Your task to perform on an android device: turn on showing notifications on the lock screen Image 0: 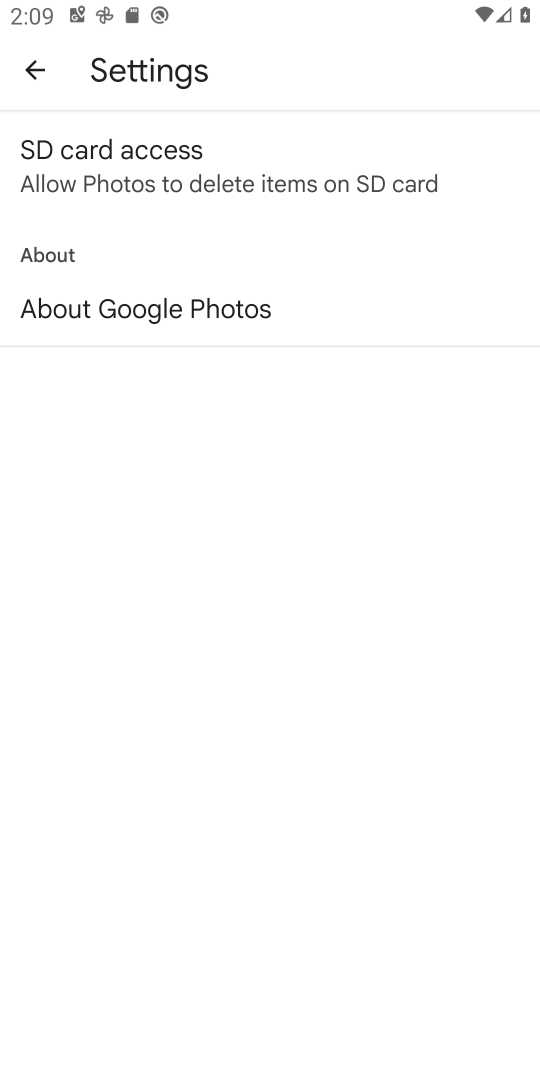
Step 0: press home button
Your task to perform on an android device: turn on showing notifications on the lock screen Image 1: 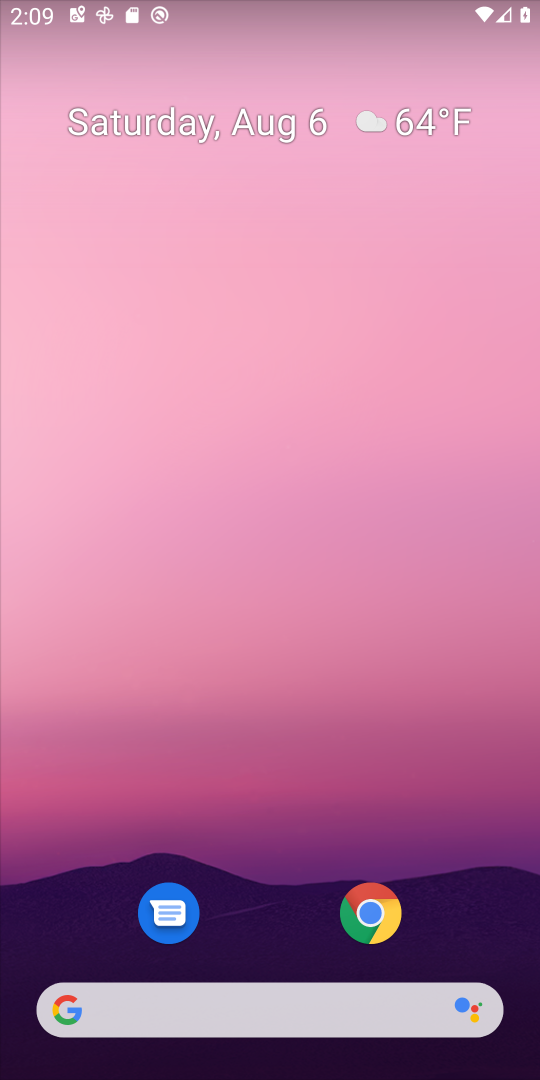
Step 1: drag from (467, 893) to (483, 302)
Your task to perform on an android device: turn on showing notifications on the lock screen Image 2: 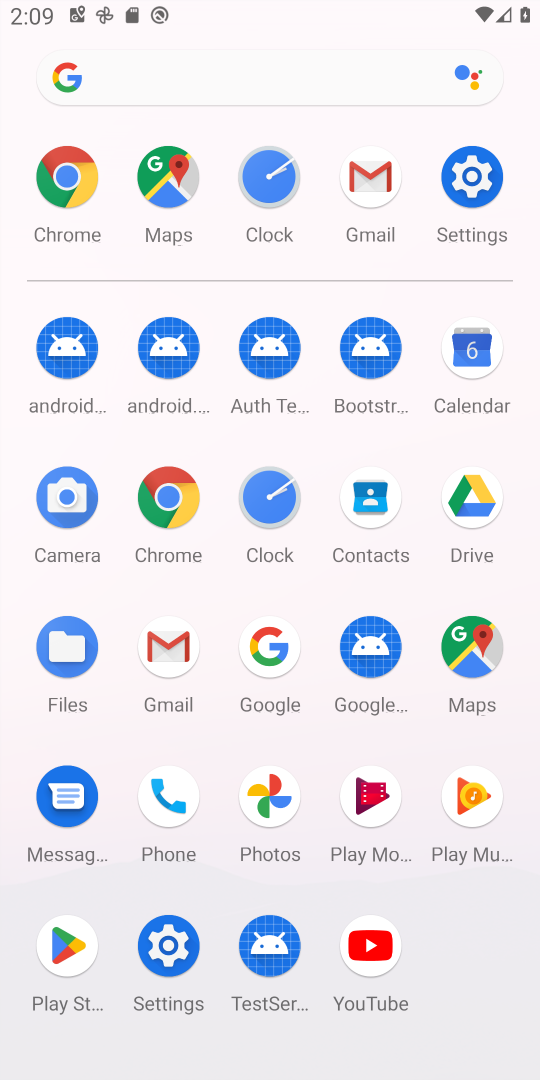
Step 2: click (482, 172)
Your task to perform on an android device: turn on showing notifications on the lock screen Image 3: 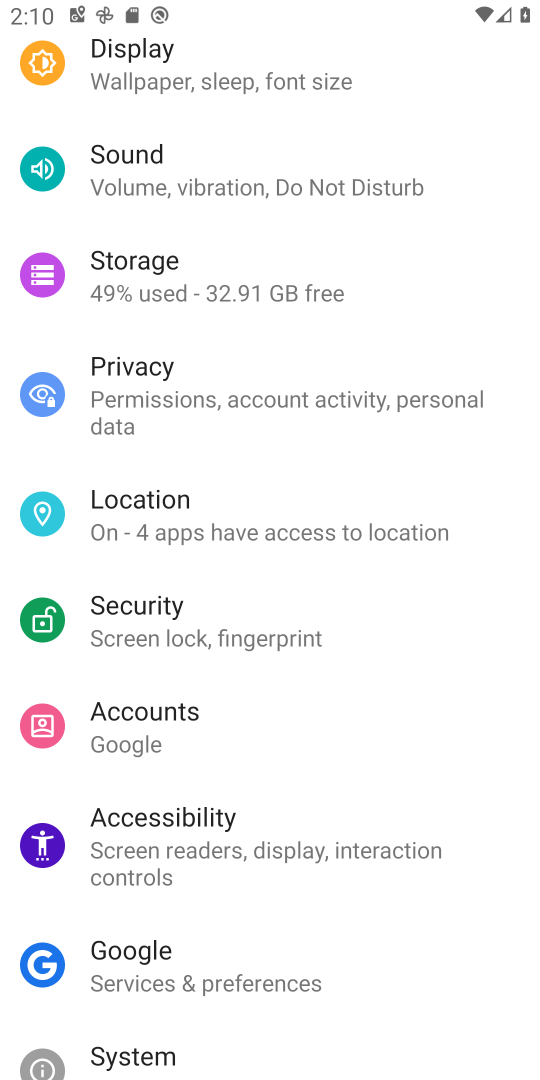
Step 3: drag from (464, 210) to (480, 364)
Your task to perform on an android device: turn on showing notifications on the lock screen Image 4: 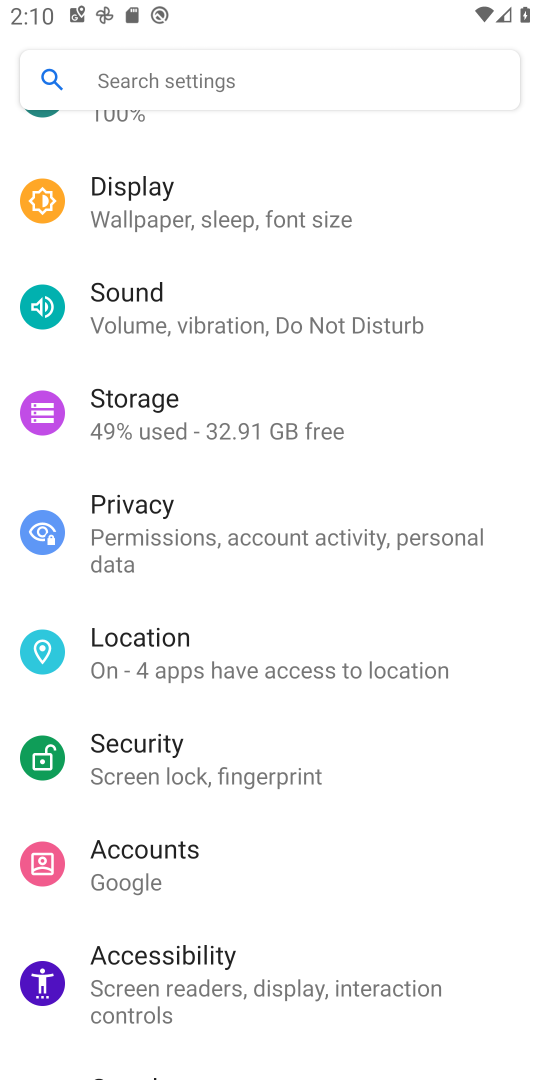
Step 4: drag from (468, 240) to (462, 420)
Your task to perform on an android device: turn on showing notifications on the lock screen Image 5: 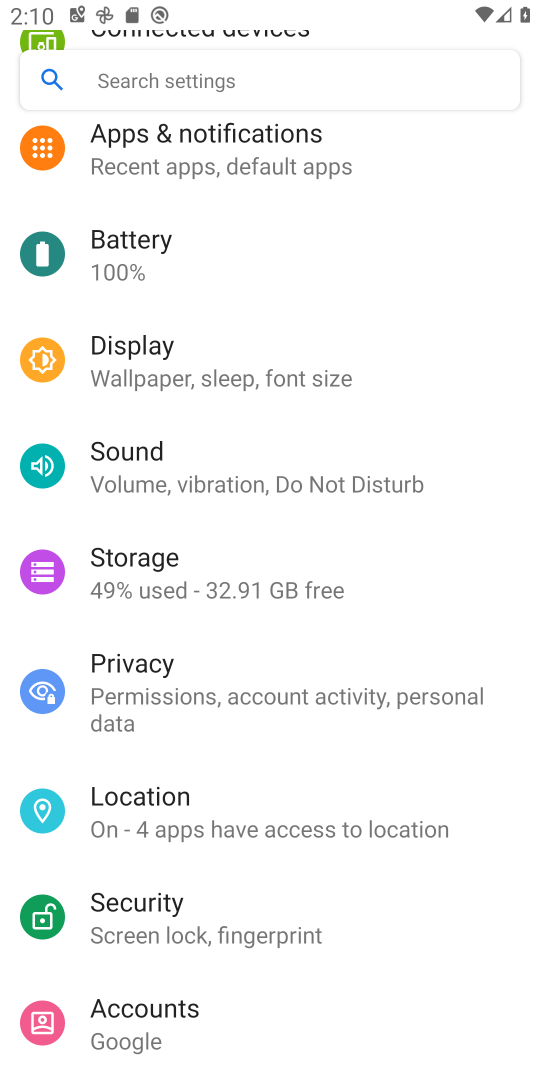
Step 5: drag from (473, 222) to (470, 421)
Your task to perform on an android device: turn on showing notifications on the lock screen Image 6: 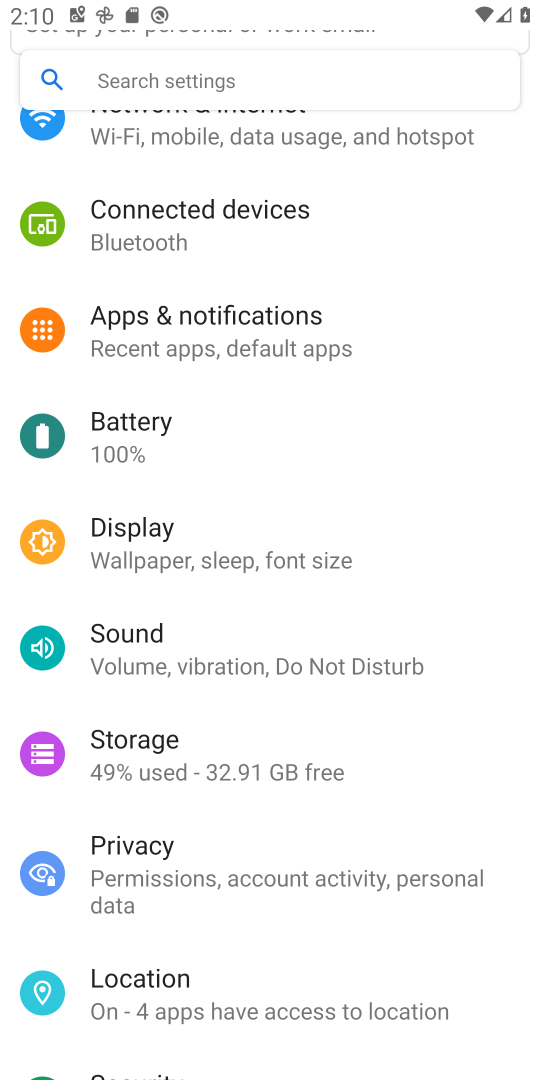
Step 6: drag from (466, 218) to (458, 442)
Your task to perform on an android device: turn on showing notifications on the lock screen Image 7: 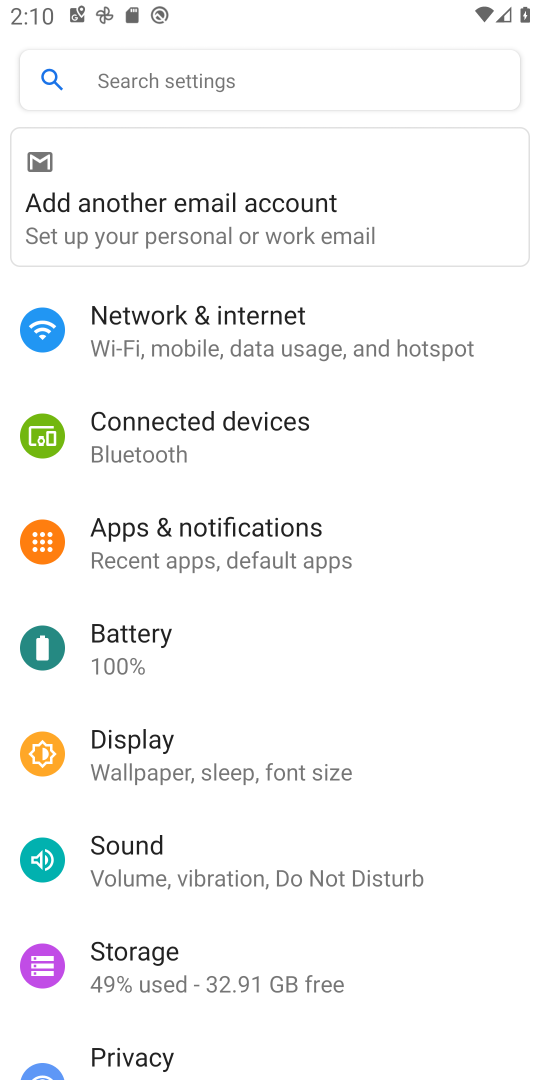
Step 7: drag from (514, 262) to (503, 472)
Your task to perform on an android device: turn on showing notifications on the lock screen Image 8: 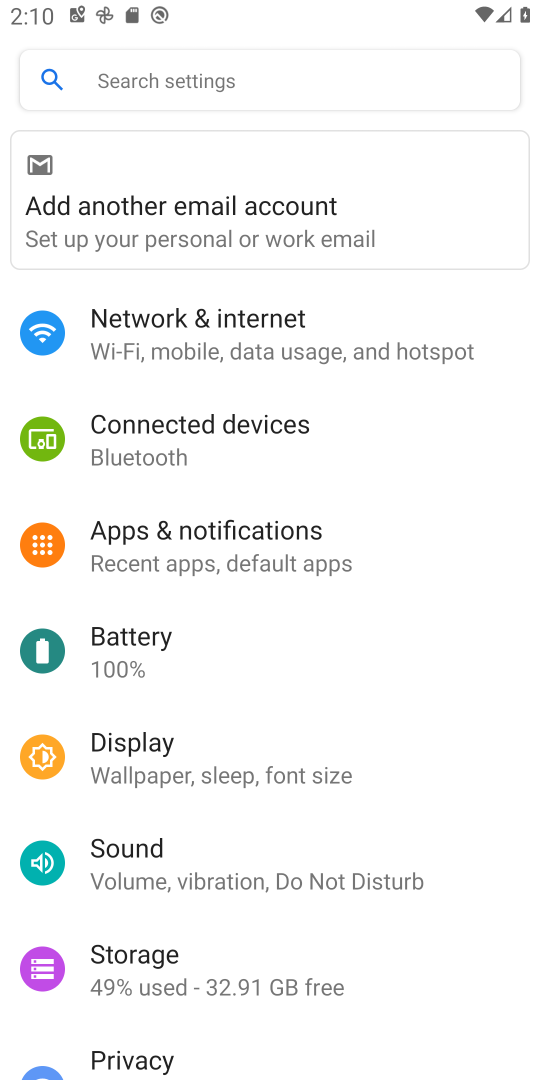
Step 8: click (329, 536)
Your task to perform on an android device: turn on showing notifications on the lock screen Image 9: 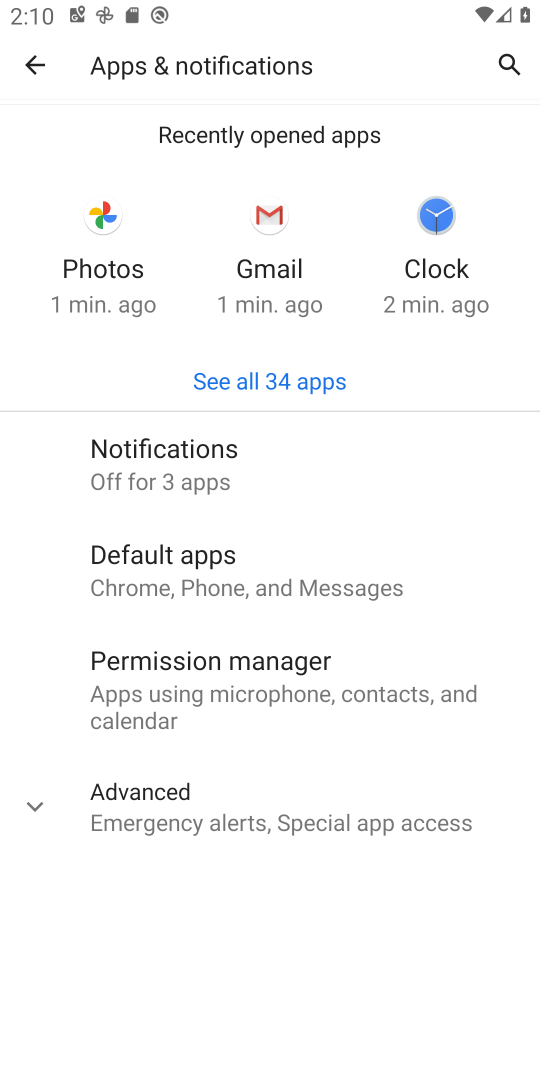
Step 9: click (256, 469)
Your task to perform on an android device: turn on showing notifications on the lock screen Image 10: 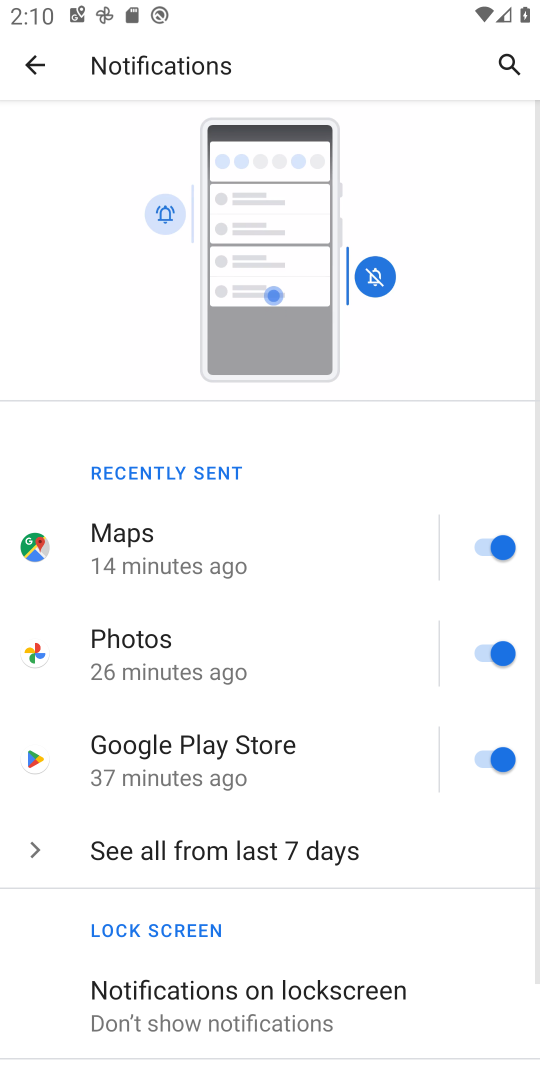
Step 10: drag from (378, 605) to (381, 489)
Your task to perform on an android device: turn on showing notifications on the lock screen Image 11: 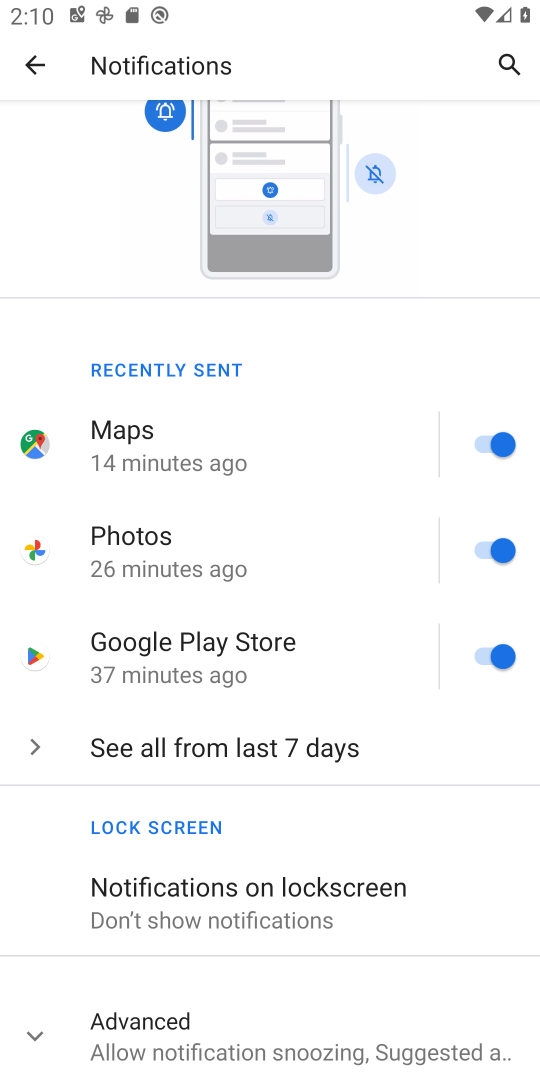
Step 11: drag from (362, 665) to (377, 450)
Your task to perform on an android device: turn on showing notifications on the lock screen Image 12: 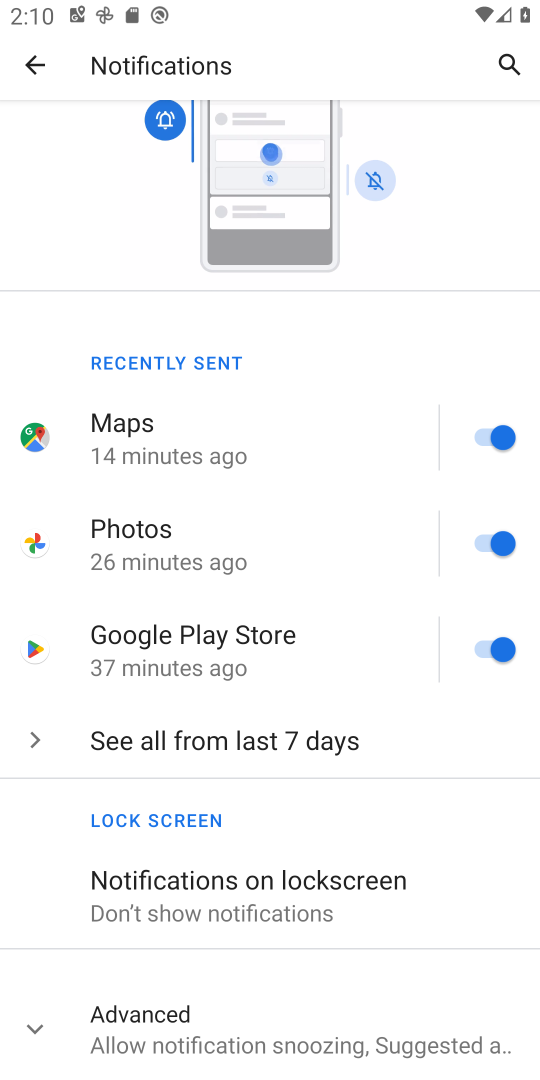
Step 12: click (398, 888)
Your task to perform on an android device: turn on showing notifications on the lock screen Image 13: 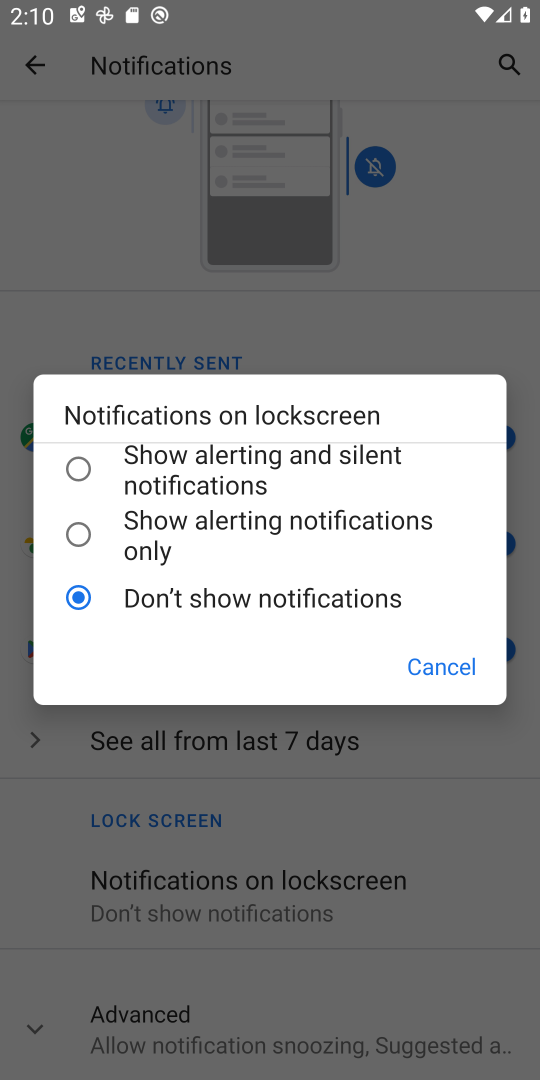
Step 13: click (115, 471)
Your task to perform on an android device: turn on showing notifications on the lock screen Image 14: 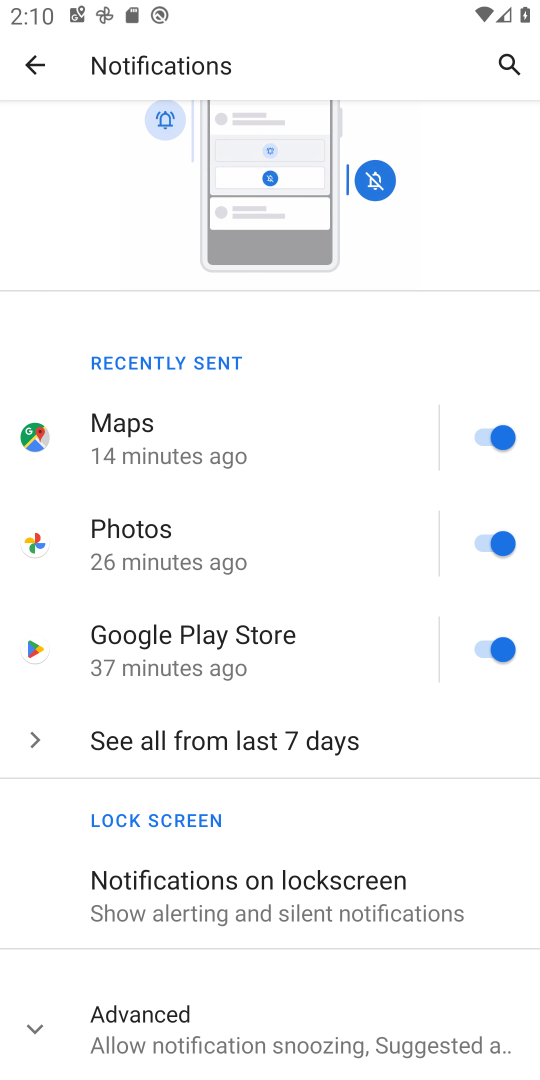
Step 14: task complete